Your task to perform on an android device: Go to Yahoo.com Image 0: 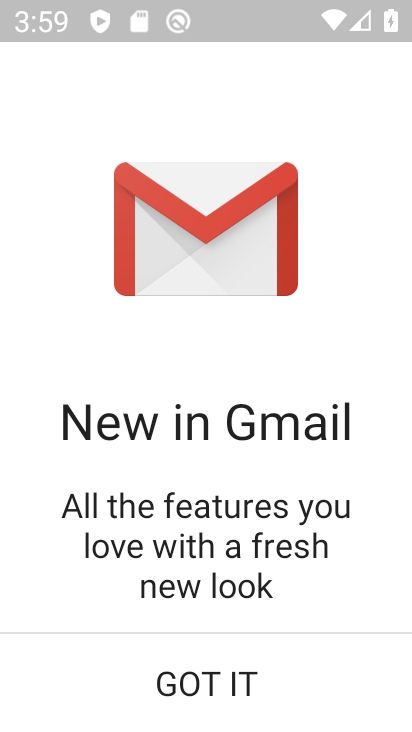
Step 0: press back button
Your task to perform on an android device: Go to Yahoo.com Image 1: 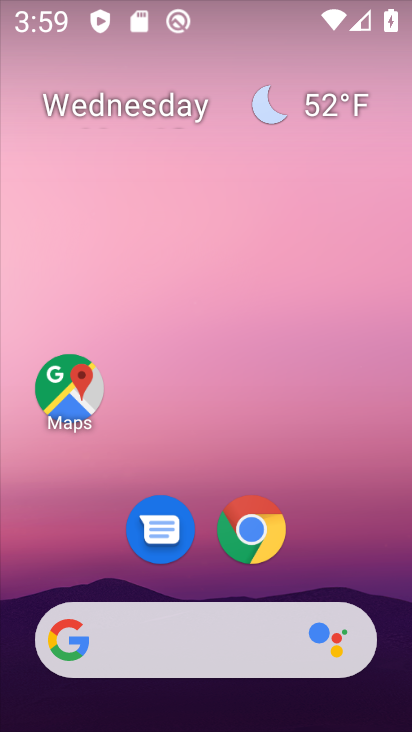
Step 1: click (253, 532)
Your task to perform on an android device: Go to Yahoo.com Image 2: 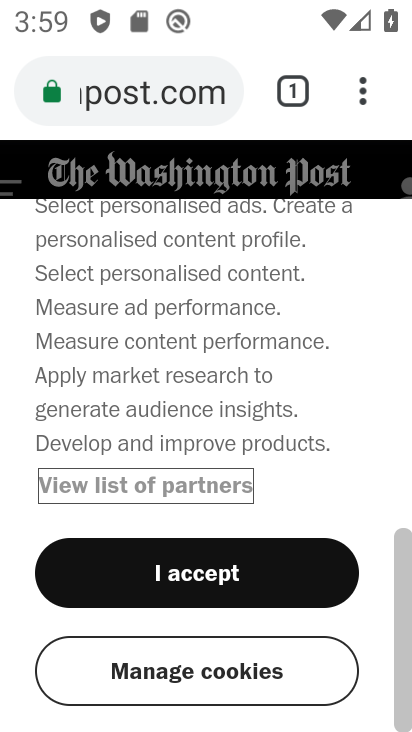
Step 2: click (156, 93)
Your task to perform on an android device: Go to Yahoo.com Image 3: 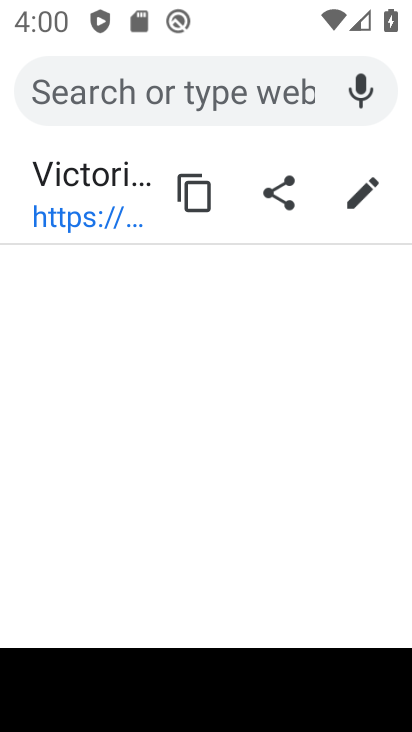
Step 3: type "Yahoo.com"
Your task to perform on an android device: Go to Yahoo.com Image 4: 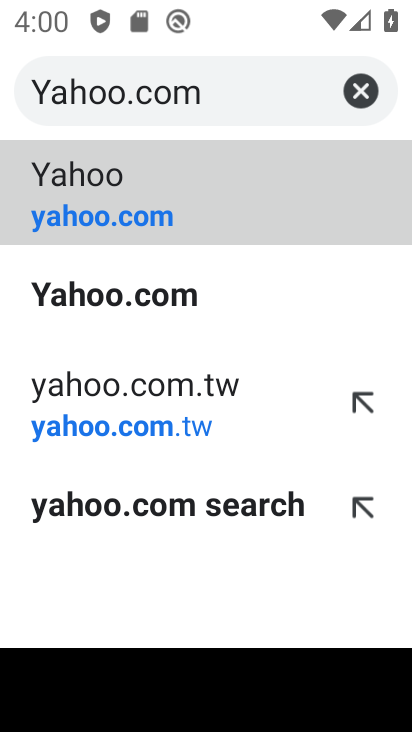
Step 4: click (98, 297)
Your task to perform on an android device: Go to Yahoo.com Image 5: 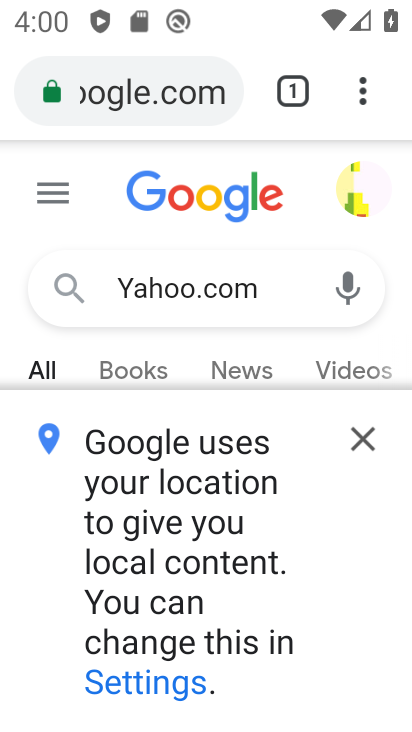
Step 5: click (360, 436)
Your task to perform on an android device: Go to Yahoo.com Image 6: 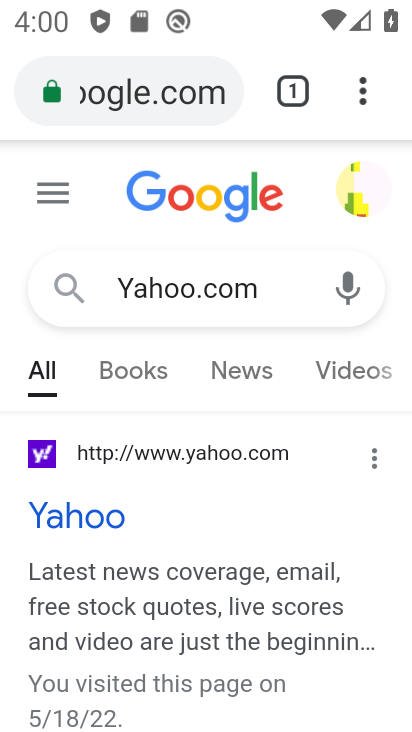
Step 6: click (51, 463)
Your task to perform on an android device: Go to Yahoo.com Image 7: 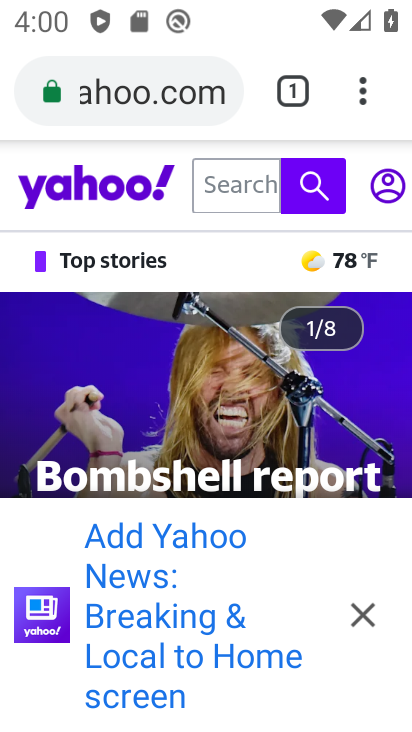
Step 7: click (363, 610)
Your task to perform on an android device: Go to Yahoo.com Image 8: 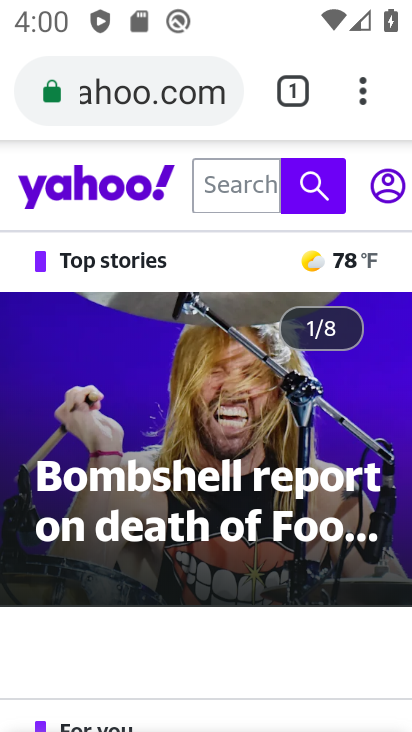
Step 8: task complete